Your task to perform on an android device: uninstall "Cash App" Image 0: 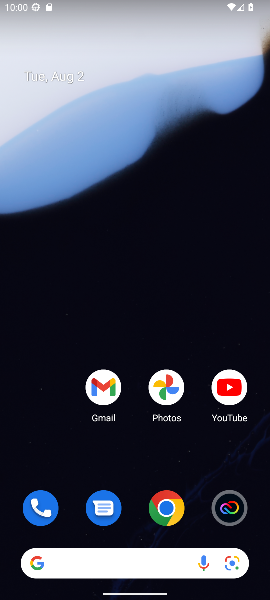
Step 0: drag from (113, 447) to (109, 30)
Your task to perform on an android device: uninstall "Cash App" Image 1: 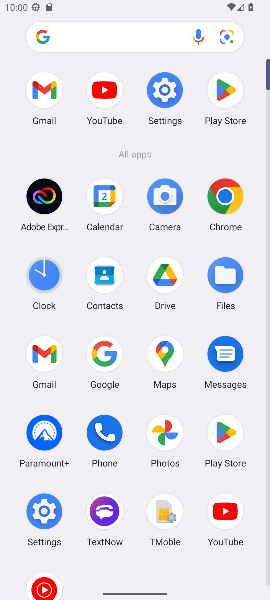
Step 1: click (217, 99)
Your task to perform on an android device: uninstall "Cash App" Image 2: 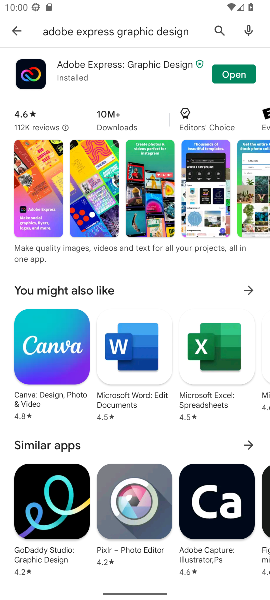
Step 2: click (214, 29)
Your task to perform on an android device: uninstall "Cash App" Image 3: 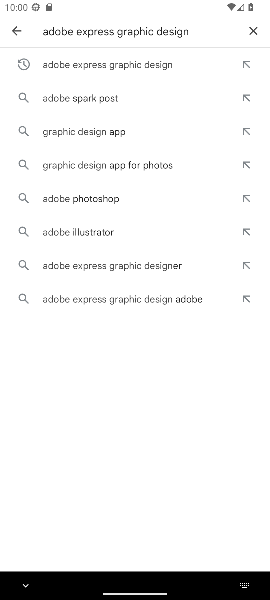
Step 3: click (257, 37)
Your task to perform on an android device: uninstall "Cash App" Image 4: 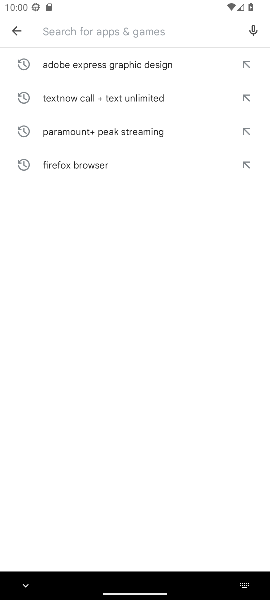
Step 4: type "Cash App"
Your task to perform on an android device: uninstall "Cash App" Image 5: 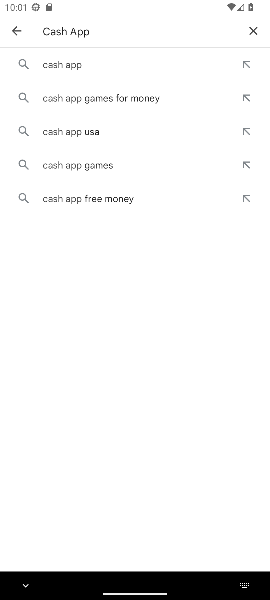
Step 5: click (71, 69)
Your task to perform on an android device: uninstall "Cash App" Image 6: 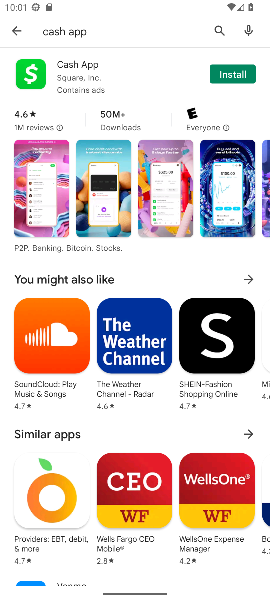
Step 6: task complete